Your task to perform on an android device: Search for "razer blade" on costco.com, select the first entry, and add it to the cart. Image 0: 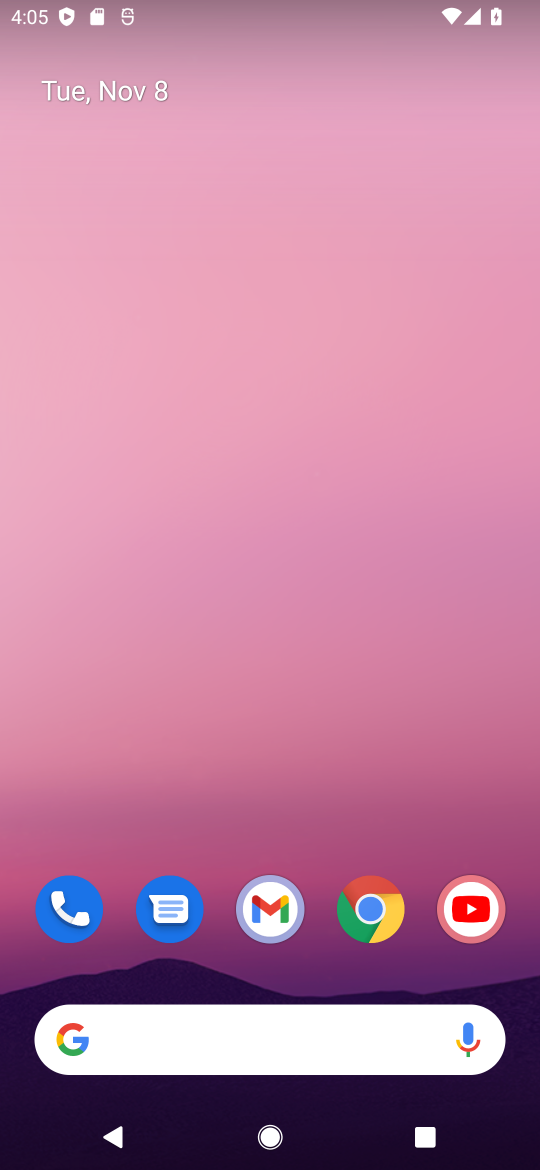
Step 0: click (371, 904)
Your task to perform on an android device: Search for "razer blade" on costco.com, select the first entry, and add it to the cart. Image 1: 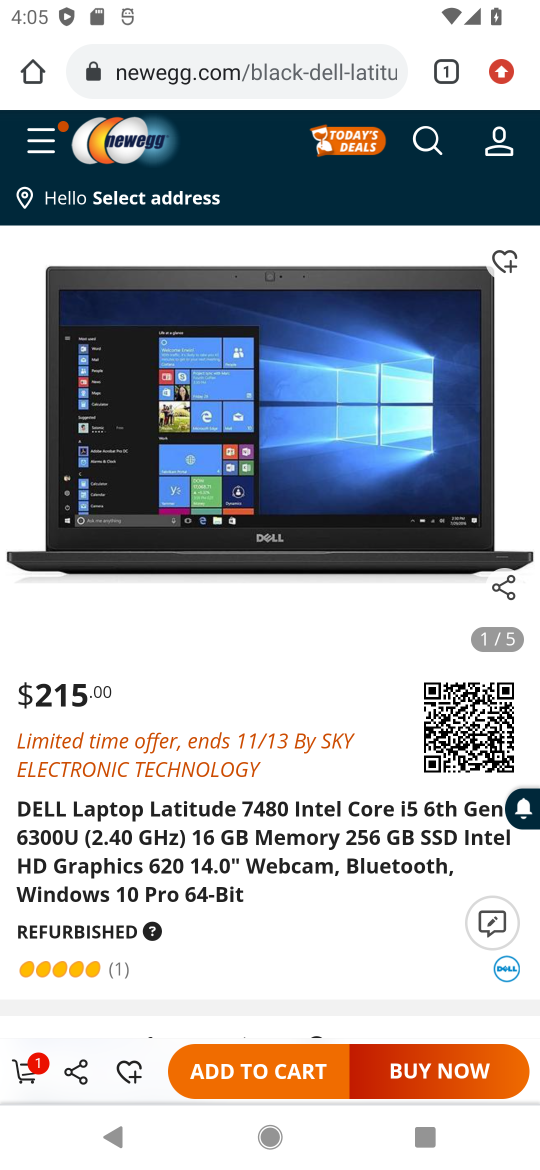
Step 1: click (275, 76)
Your task to perform on an android device: Search for "razer blade" on costco.com, select the first entry, and add it to the cart. Image 2: 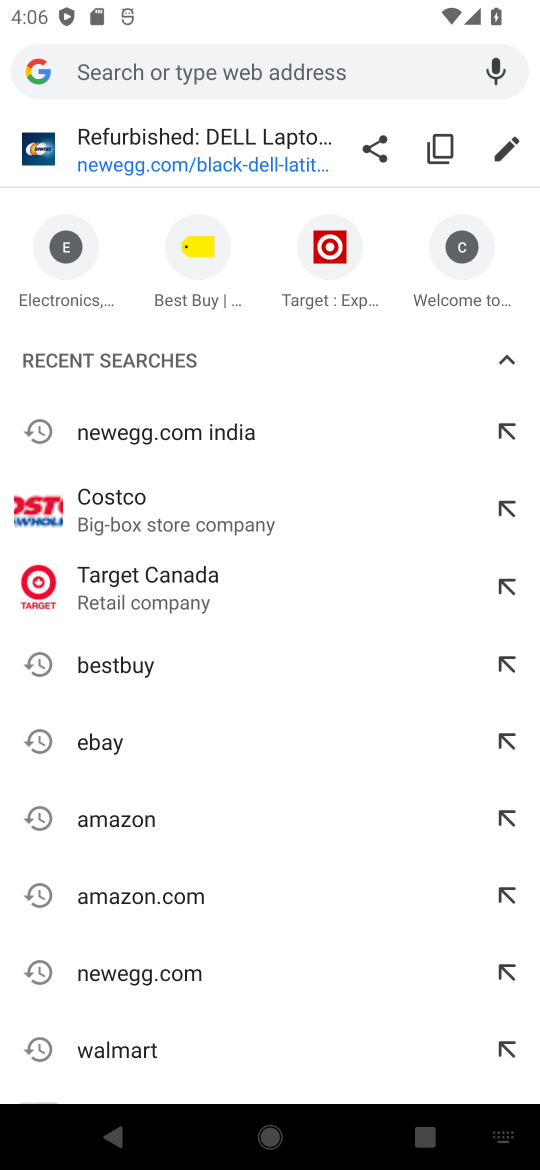
Step 2: click (112, 497)
Your task to perform on an android device: Search for "razer blade" on costco.com, select the first entry, and add it to the cart. Image 3: 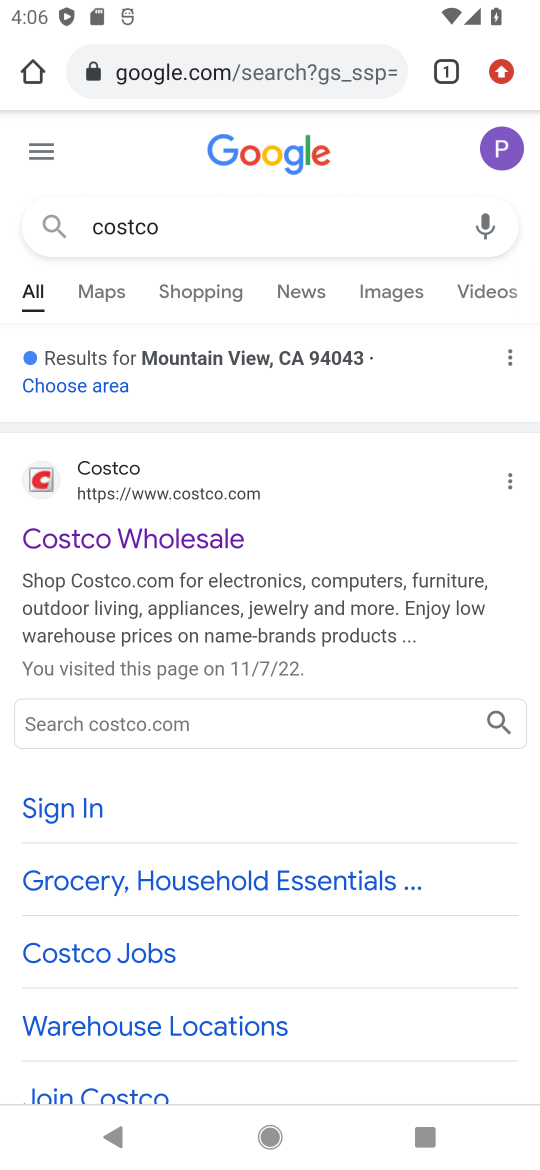
Step 3: click (95, 530)
Your task to perform on an android device: Search for "razer blade" on costco.com, select the first entry, and add it to the cart. Image 4: 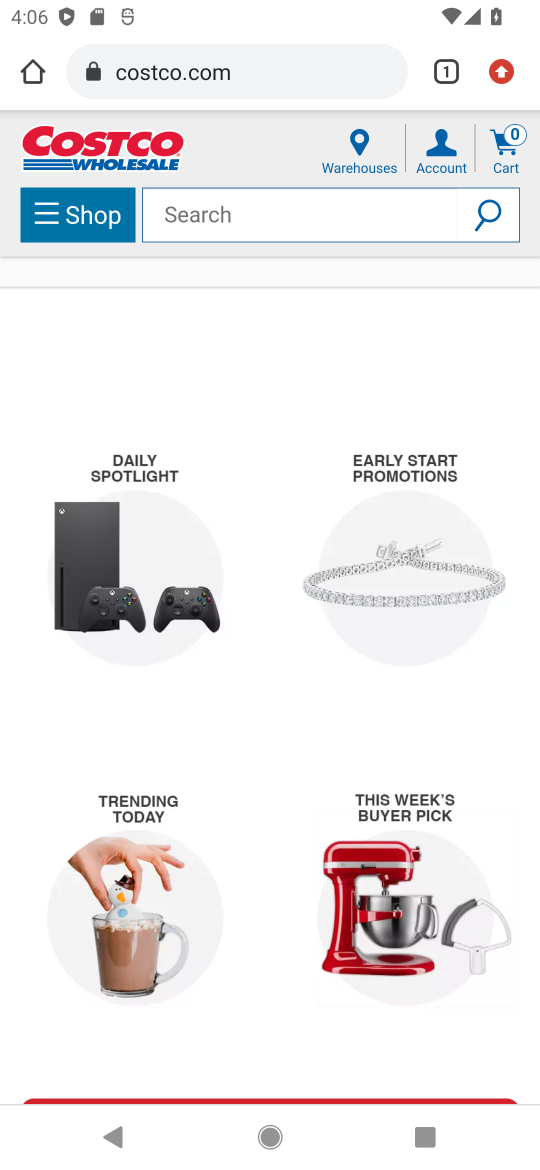
Step 4: click (290, 190)
Your task to perform on an android device: Search for "razer blade" on costco.com, select the first entry, and add it to the cart. Image 5: 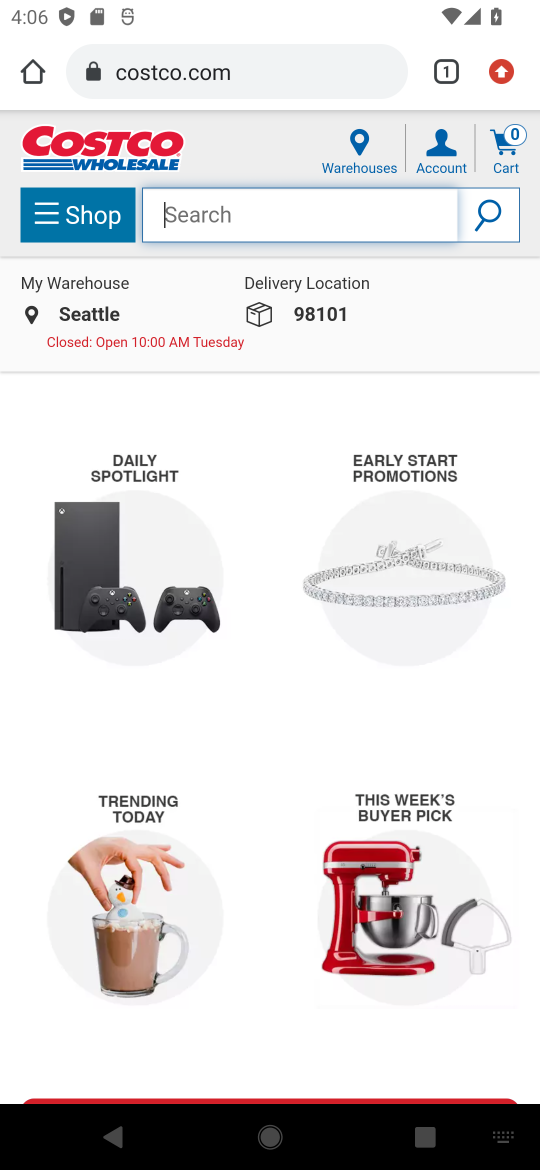
Step 5: type "razer blade"
Your task to perform on an android device: Search for "razer blade" on costco.com, select the first entry, and add it to the cart. Image 6: 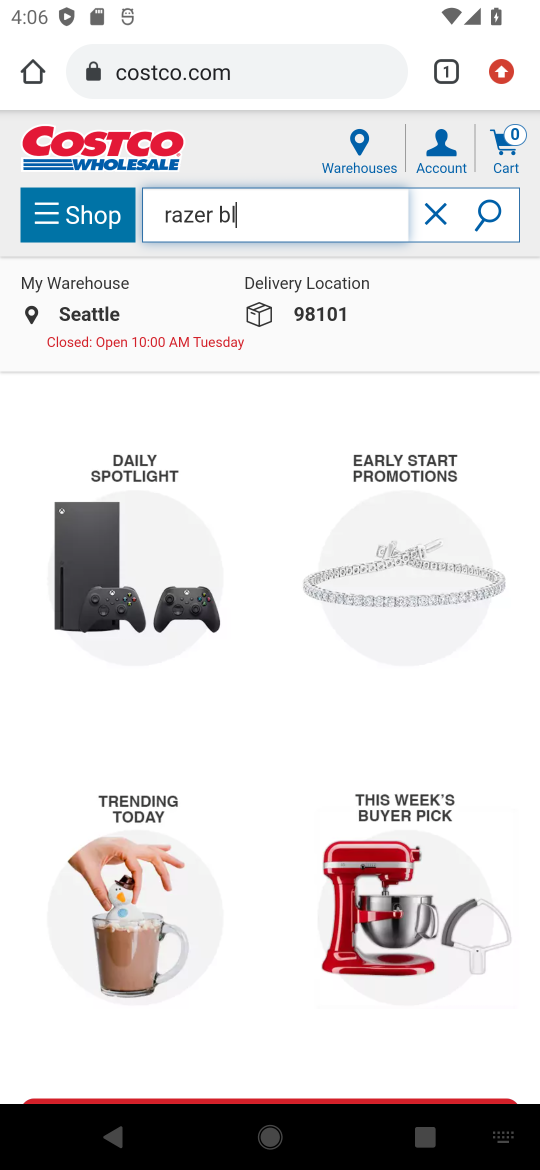
Step 6: press enter
Your task to perform on an android device: Search for "razer blade" on costco.com, select the first entry, and add it to the cart. Image 7: 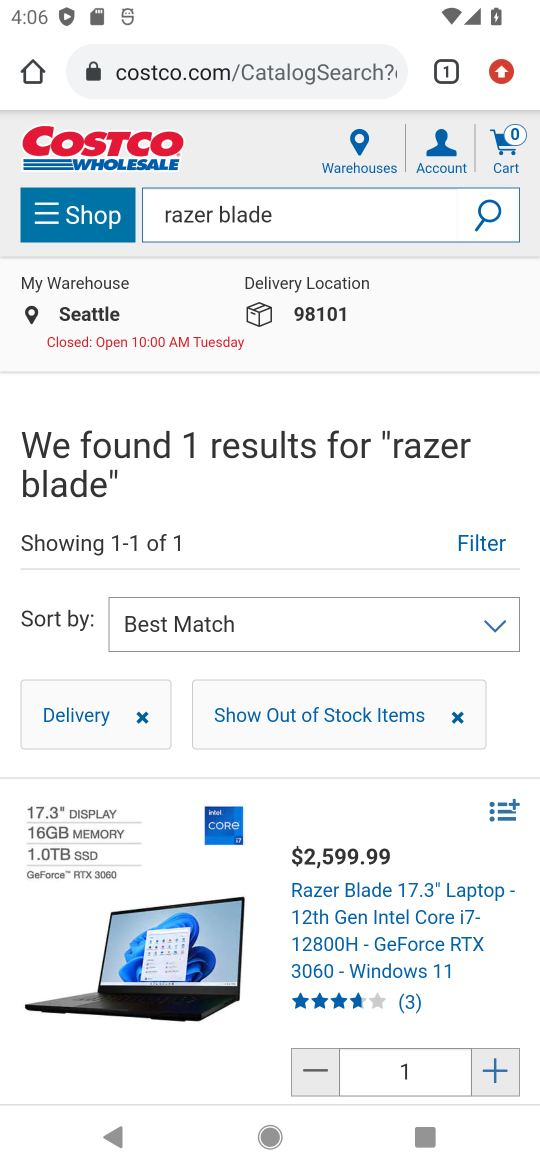
Step 7: drag from (161, 825) to (310, 475)
Your task to perform on an android device: Search for "razer blade" on costco.com, select the first entry, and add it to the cart. Image 8: 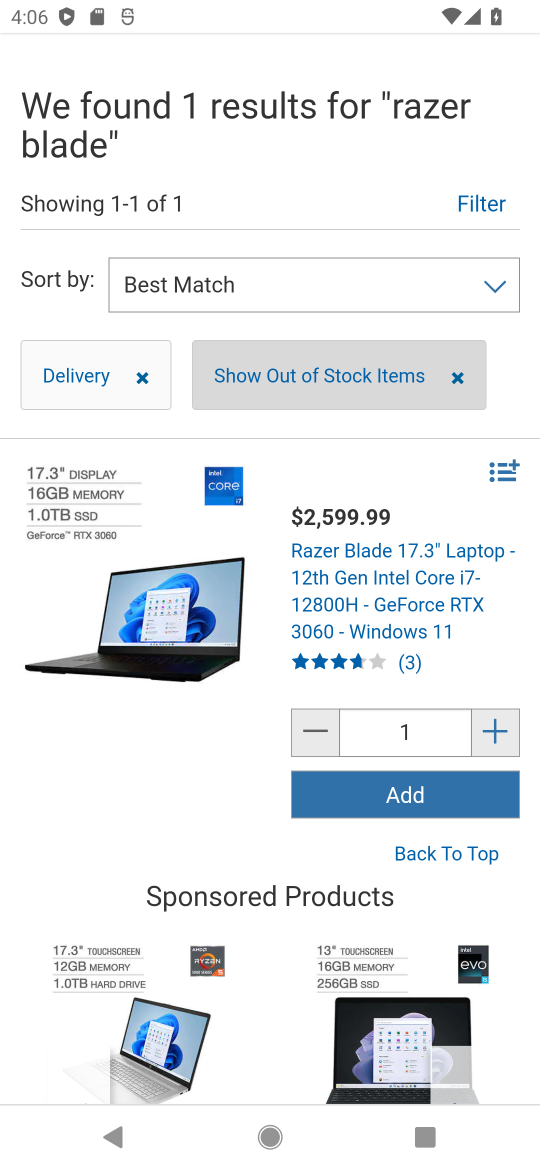
Step 8: click (425, 798)
Your task to perform on an android device: Search for "razer blade" on costco.com, select the first entry, and add it to the cart. Image 9: 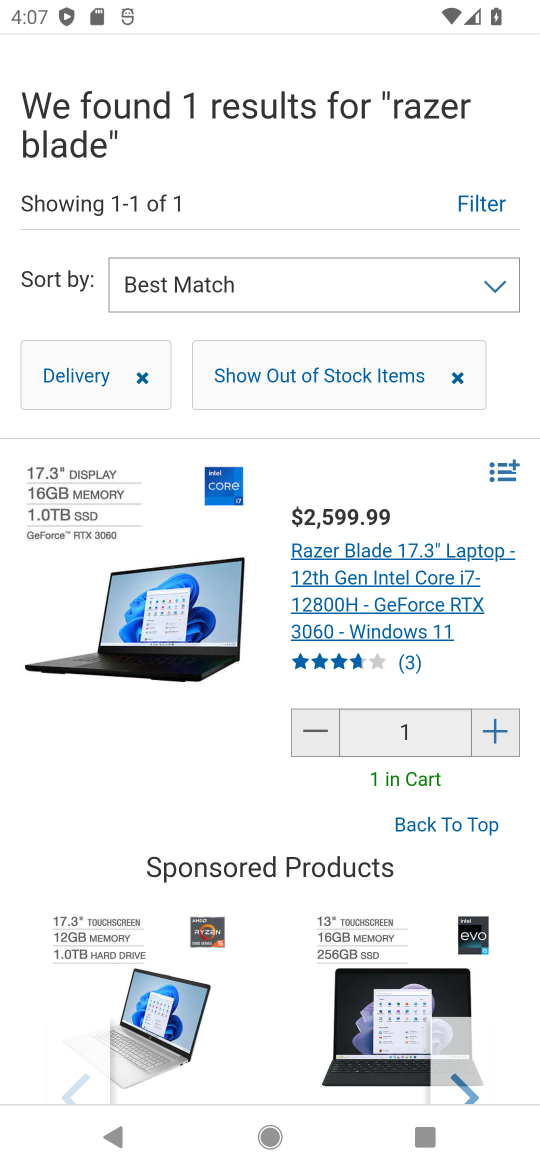
Step 9: drag from (356, 452) to (252, 838)
Your task to perform on an android device: Search for "razer blade" on costco.com, select the first entry, and add it to the cart. Image 10: 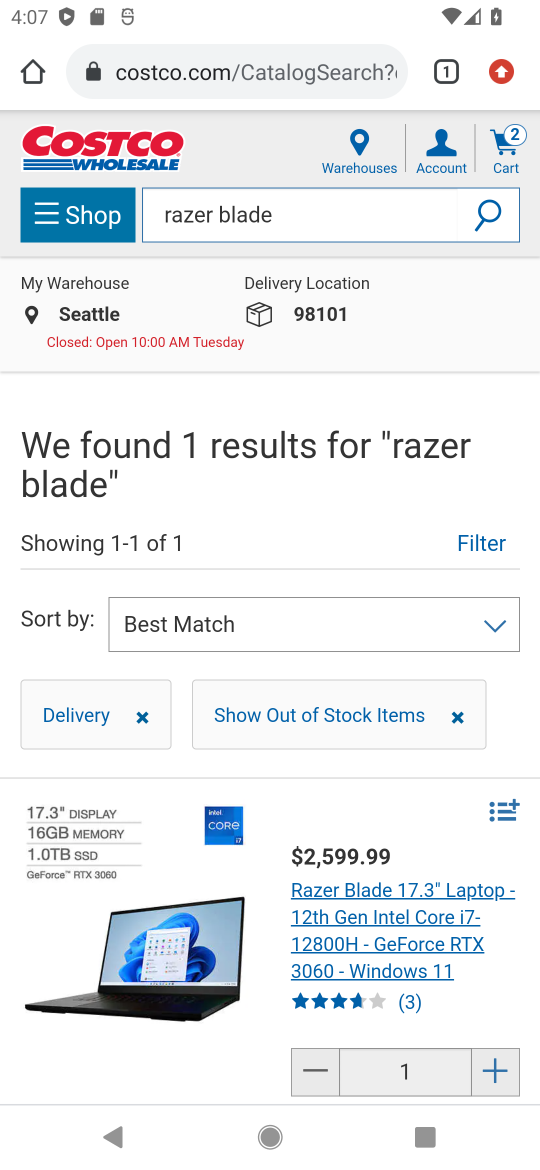
Step 10: click (497, 138)
Your task to perform on an android device: Search for "razer blade" on costco.com, select the first entry, and add it to the cart. Image 11: 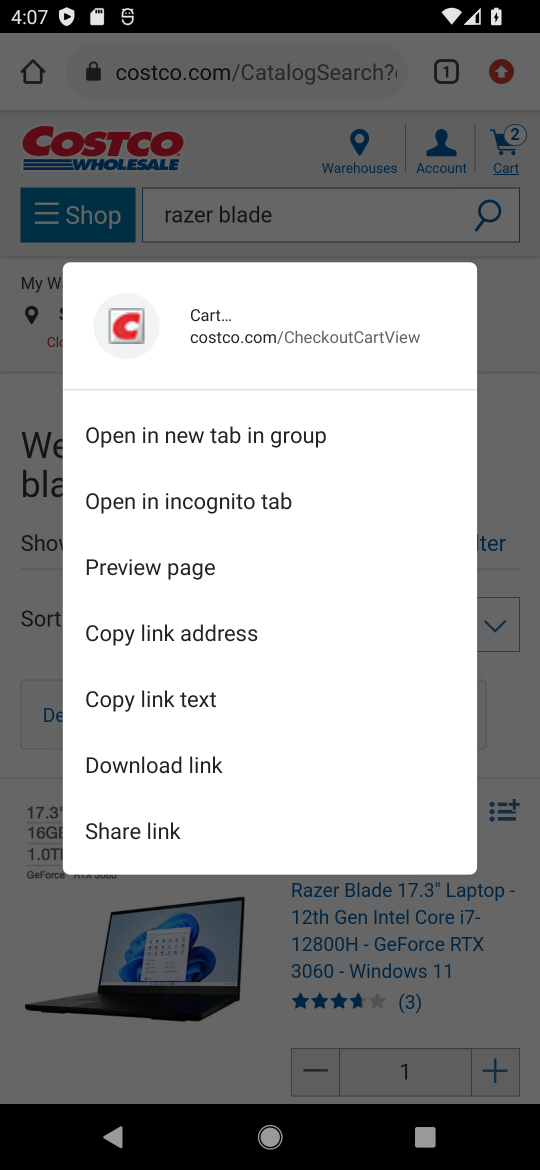
Step 11: click (513, 146)
Your task to perform on an android device: Search for "razer blade" on costco.com, select the first entry, and add it to the cart. Image 12: 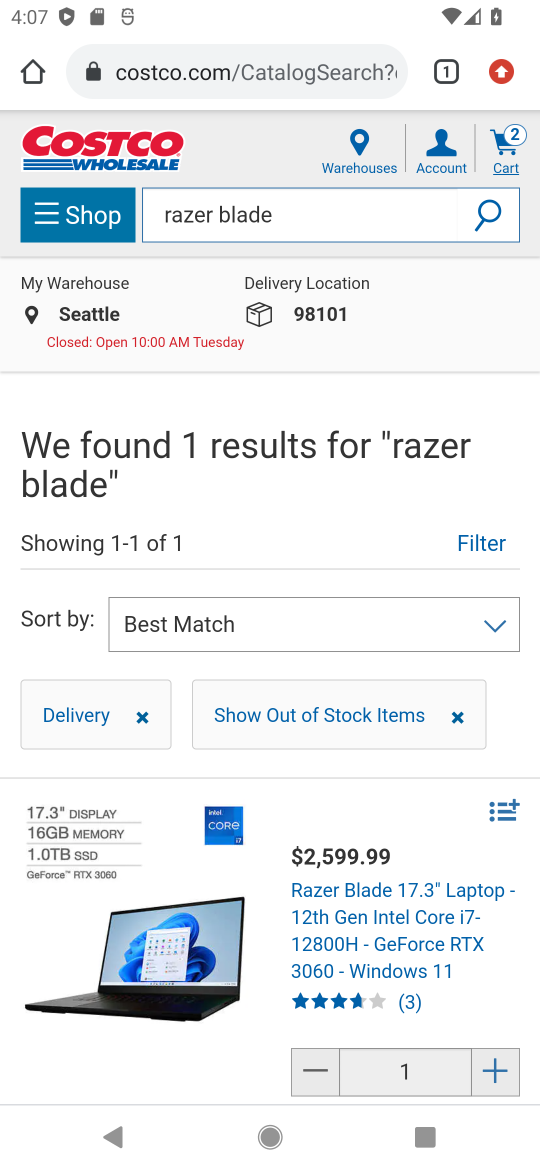
Step 12: click (511, 139)
Your task to perform on an android device: Search for "razer blade" on costco.com, select the first entry, and add it to the cart. Image 13: 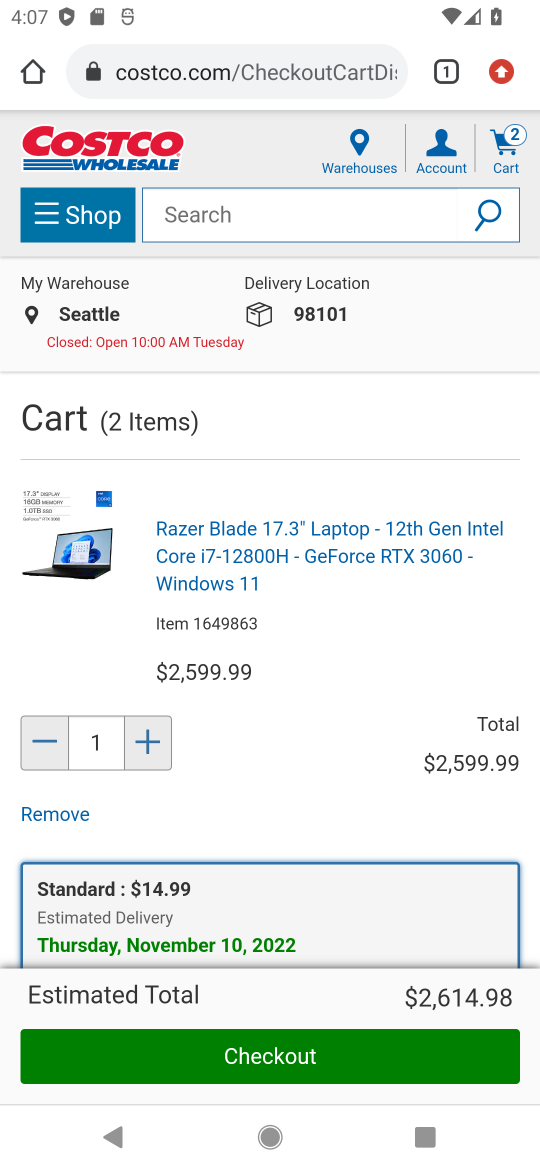
Step 13: task complete